Your task to perform on an android device: Open settings Image 0: 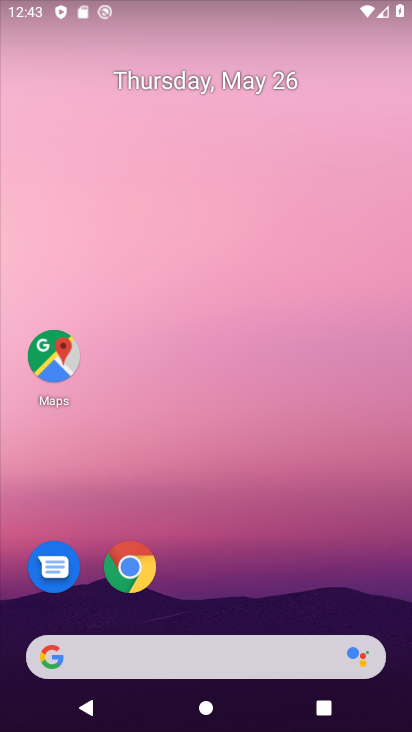
Step 0: drag from (265, 581) to (258, 87)
Your task to perform on an android device: Open settings Image 1: 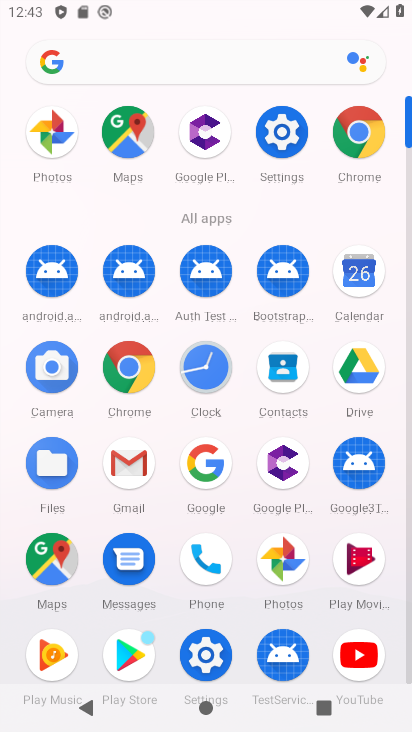
Step 1: click (283, 136)
Your task to perform on an android device: Open settings Image 2: 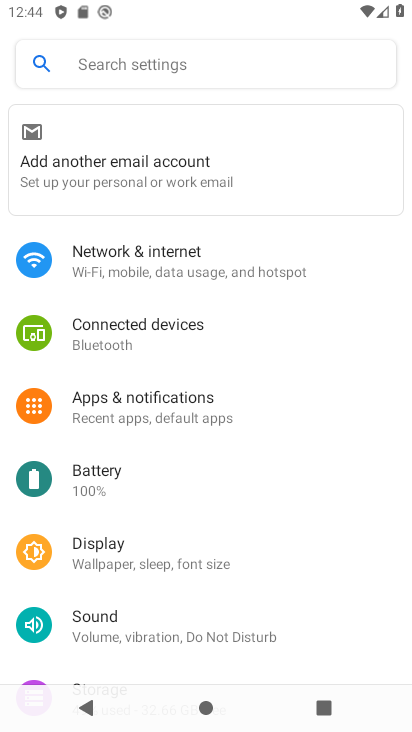
Step 2: task complete